Your task to perform on an android device: Go to Google Image 0: 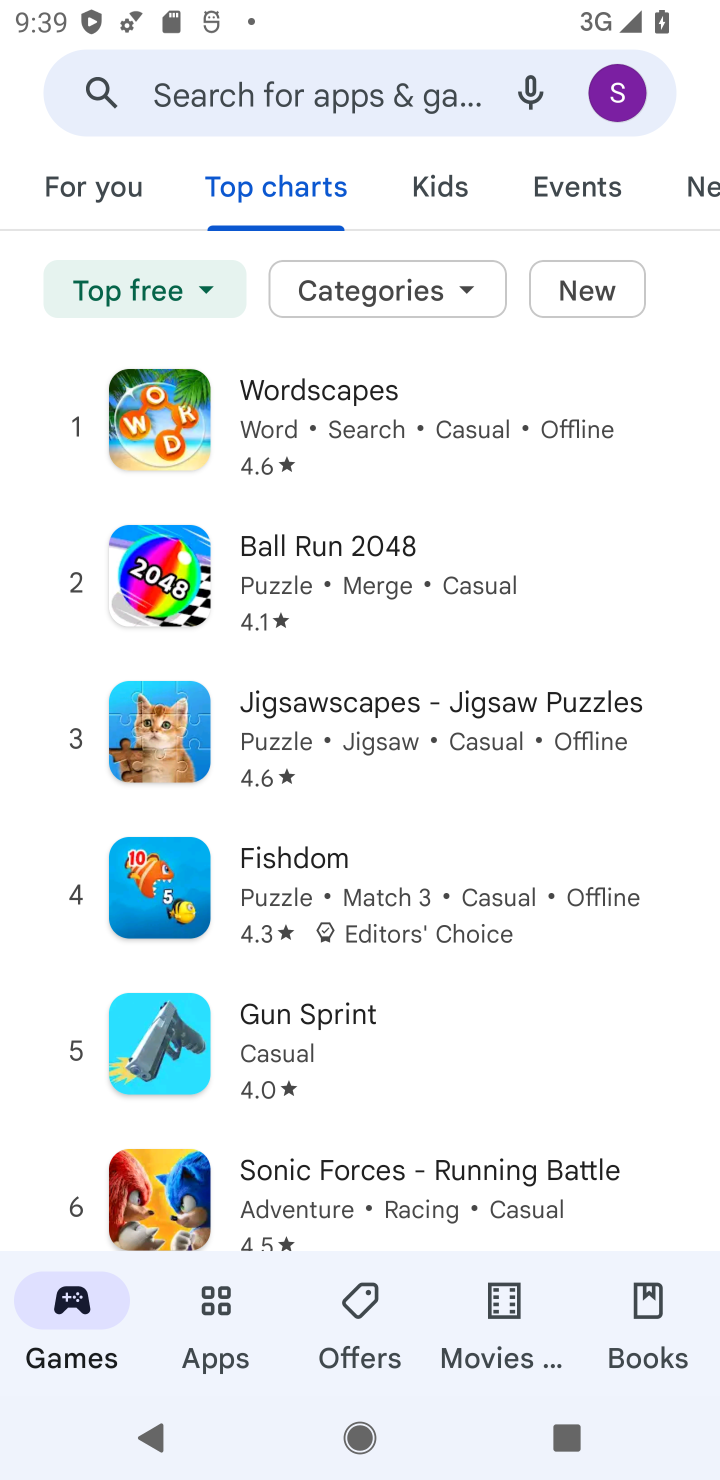
Step 0: press home button
Your task to perform on an android device: Go to Google Image 1: 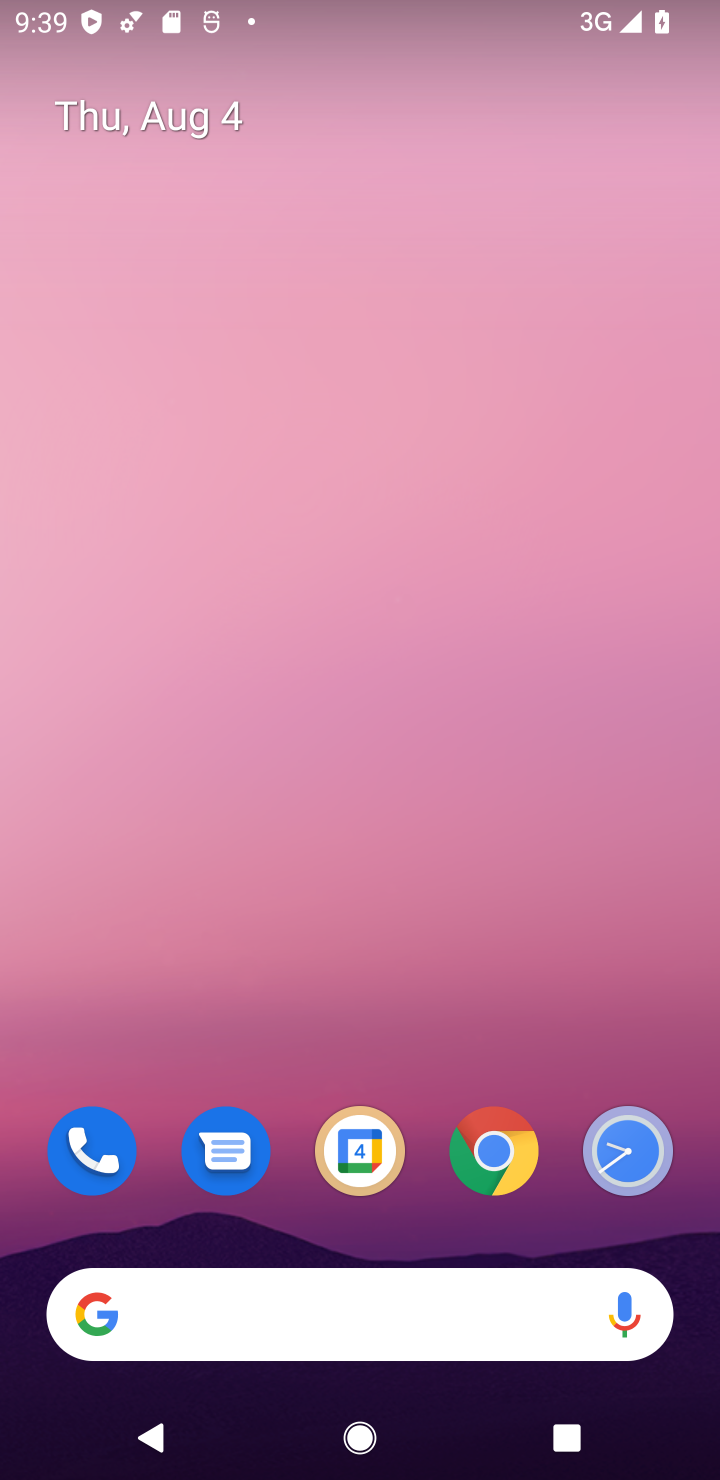
Step 1: drag from (426, 1096) to (391, 487)
Your task to perform on an android device: Go to Google Image 2: 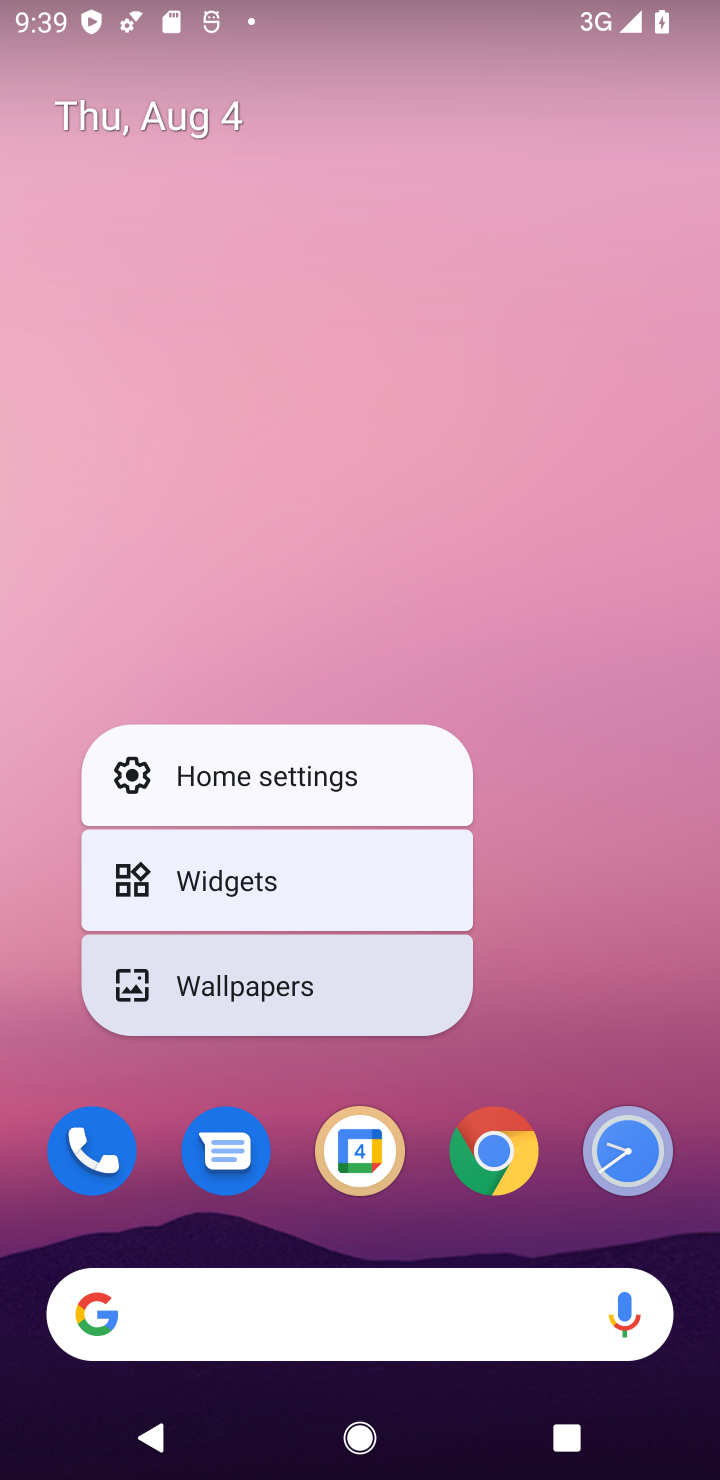
Step 2: click (391, 491)
Your task to perform on an android device: Go to Google Image 3: 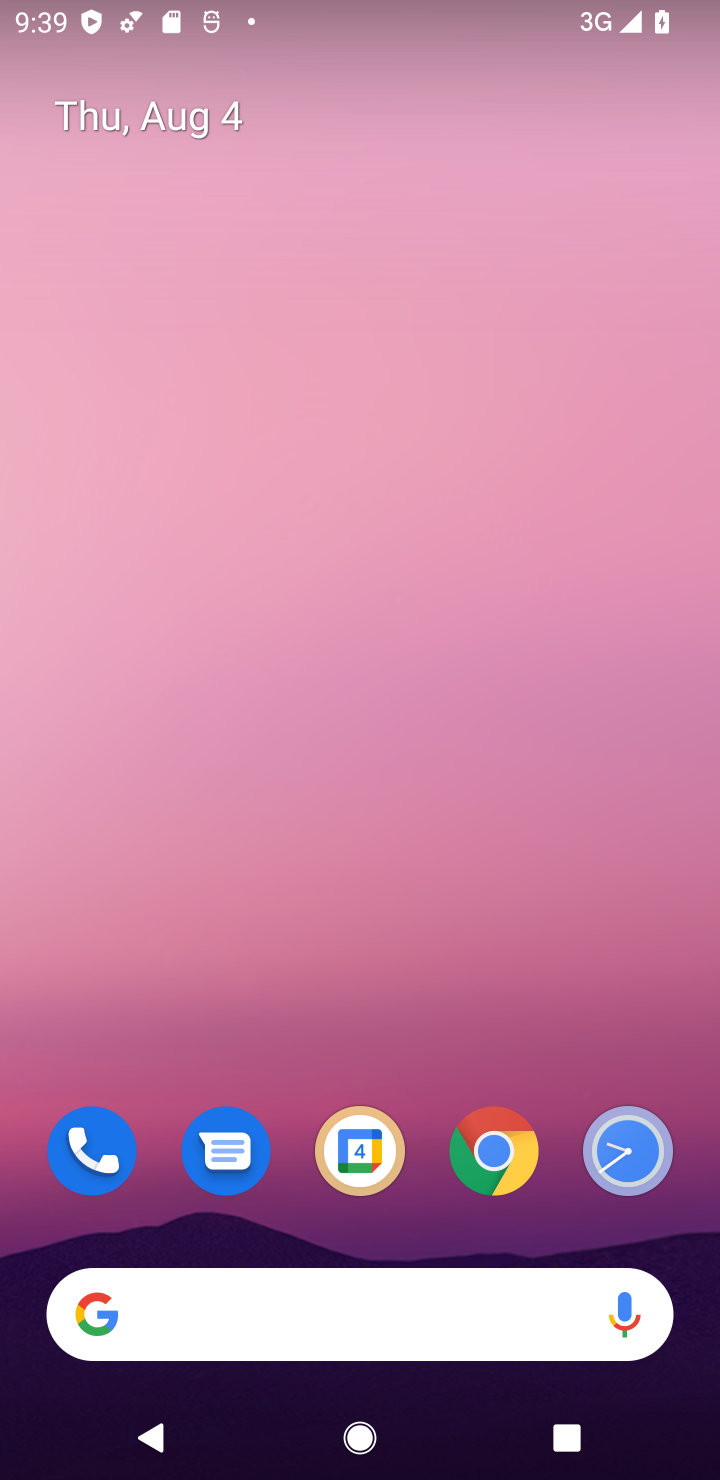
Step 3: drag from (428, 1072) to (431, 305)
Your task to perform on an android device: Go to Google Image 4: 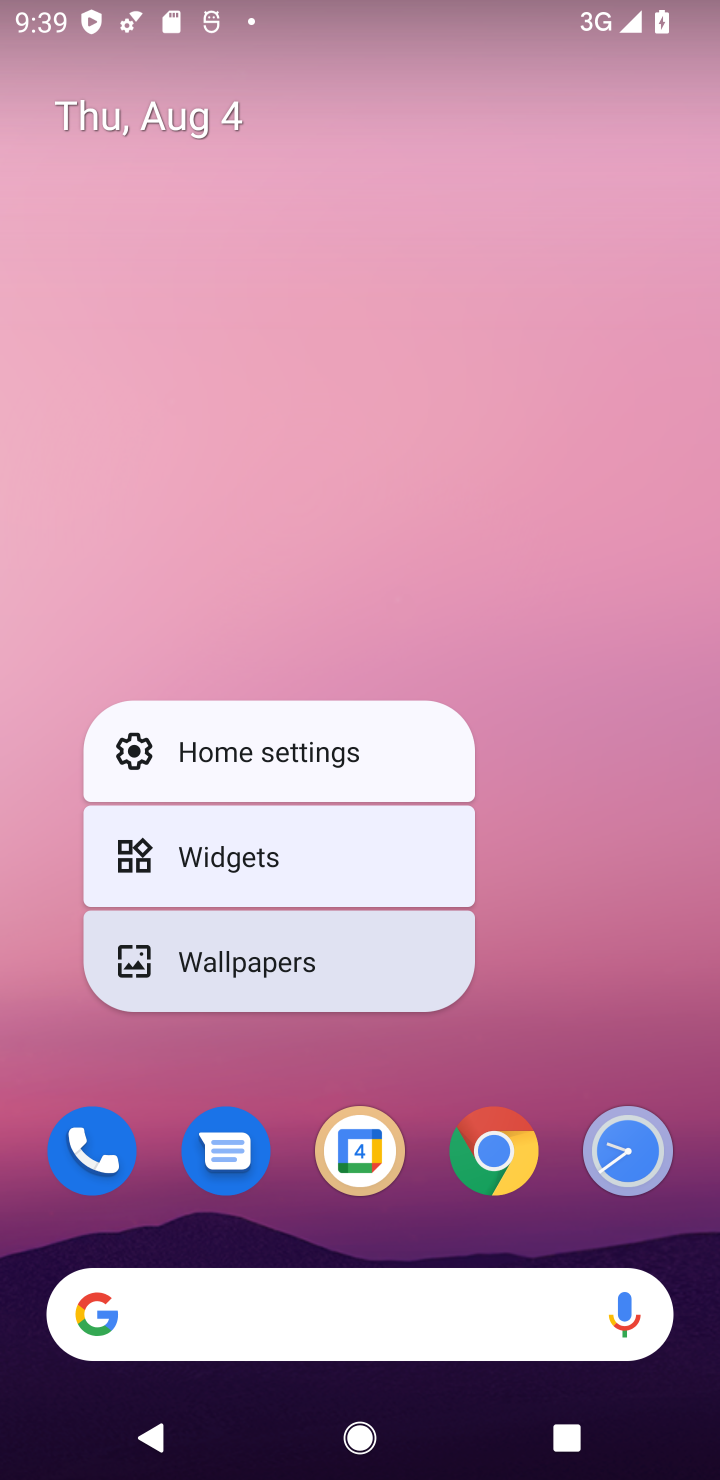
Step 4: click (623, 792)
Your task to perform on an android device: Go to Google Image 5: 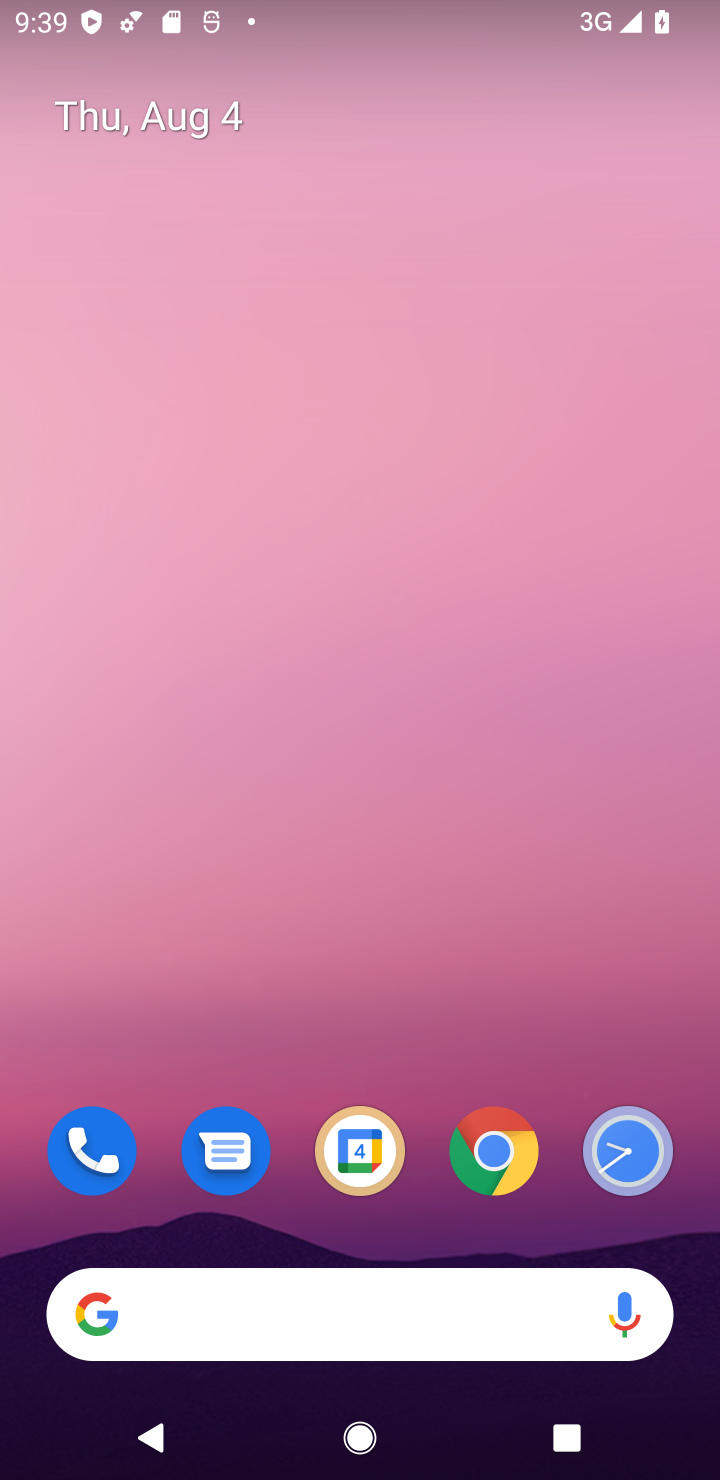
Step 5: drag from (432, 1077) to (435, 354)
Your task to perform on an android device: Go to Google Image 6: 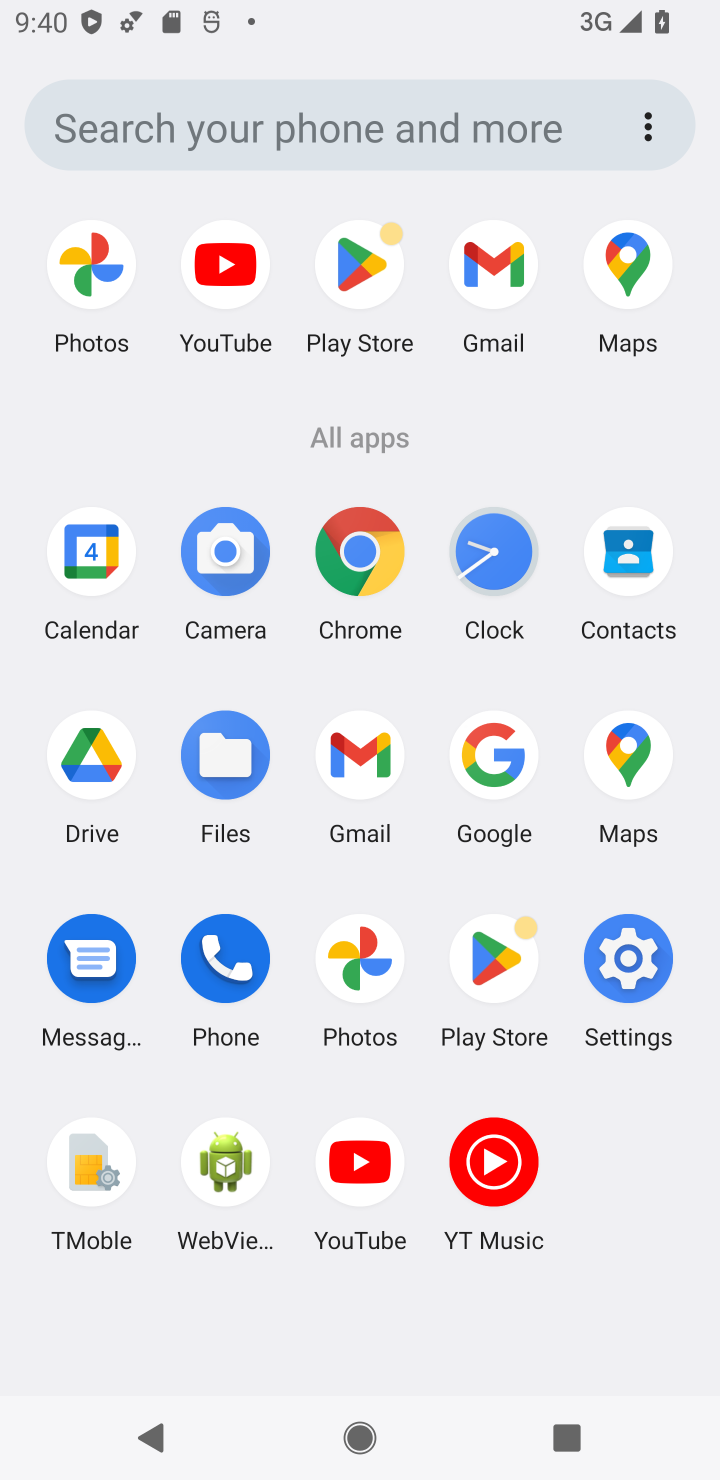
Step 6: click (486, 756)
Your task to perform on an android device: Go to Google Image 7: 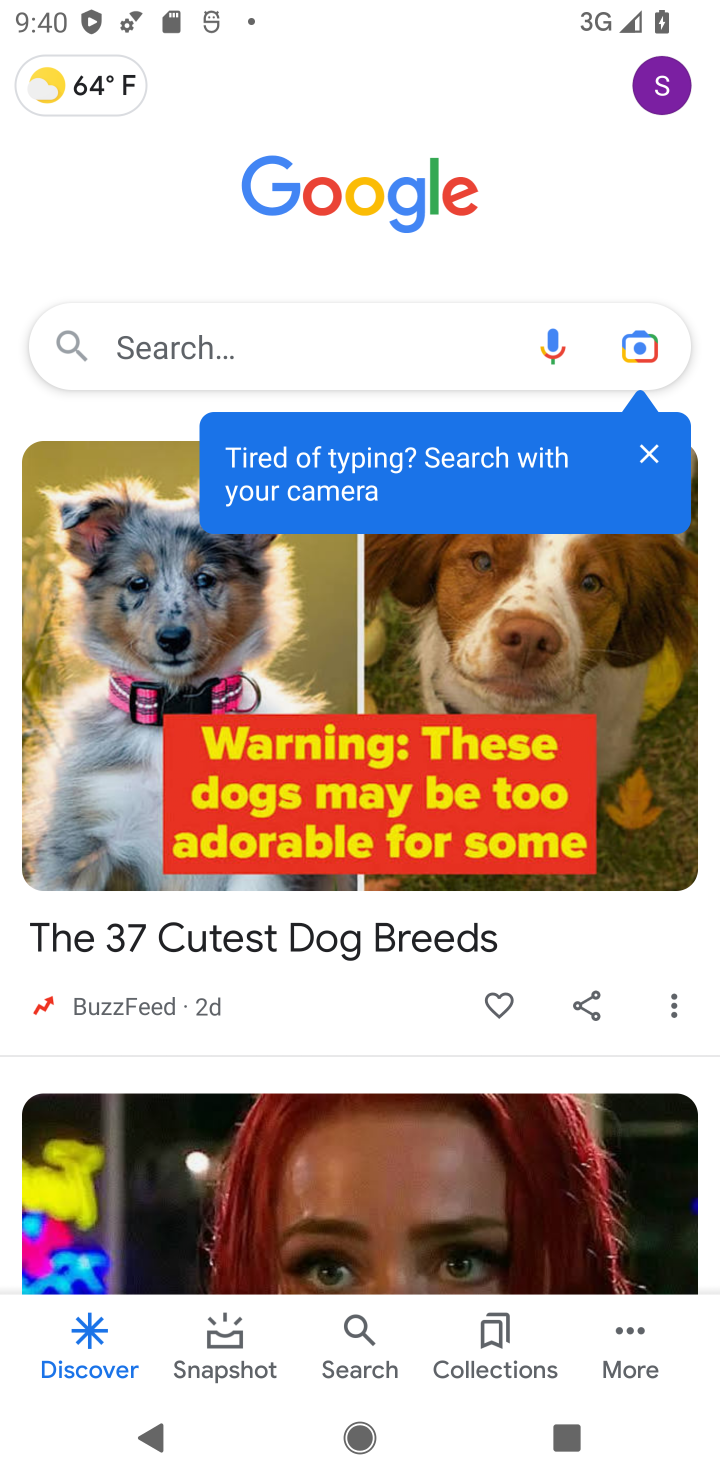
Step 7: task complete